Your task to perform on an android device: What's the price of the LG TV? Image 0: 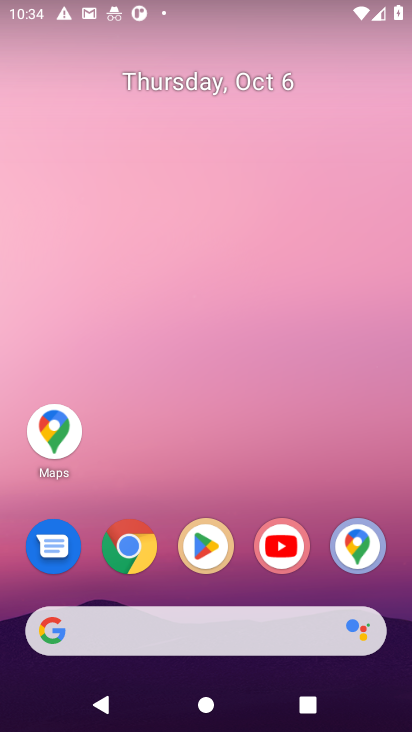
Step 0: click (128, 546)
Your task to perform on an android device: What's the price of the LG TV? Image 1: 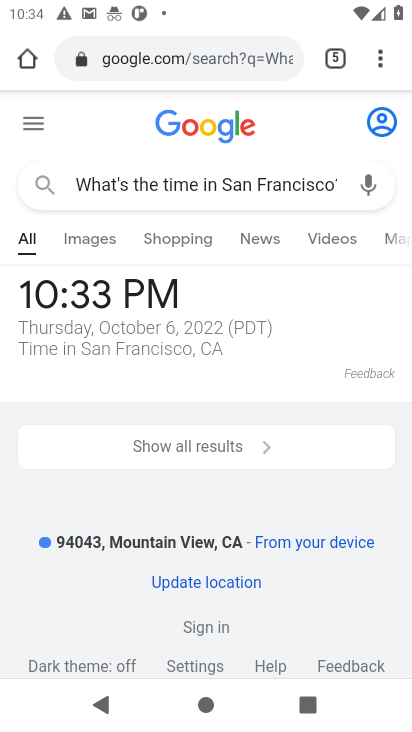
Step 1: click (215, 39)
Your task to perform on an android device: What's the price of the LG TV? Image 2: 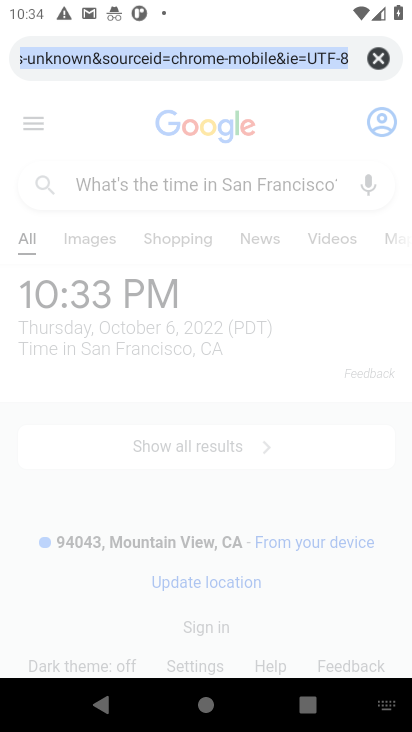
Step 2: click (373, 54)
Your task to perform on an android device: What's the price of the LG TV? Image 3: 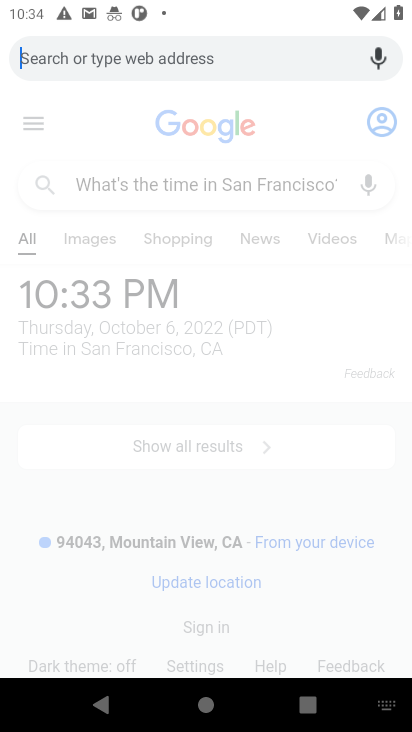
Step 3: type "What's the price of the LG TV?"
Your task to perform on an android device: What's the price of the LG TV? Image 4: 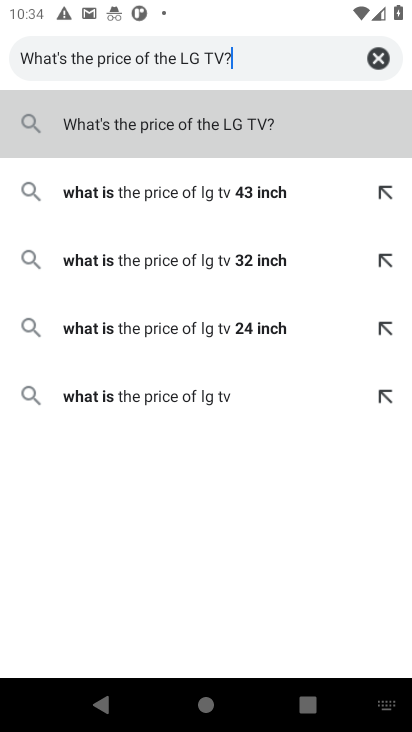
Step 4: click (189, 116)
Your task to perform on an android device: What's the price of the LG TV? Image 5: 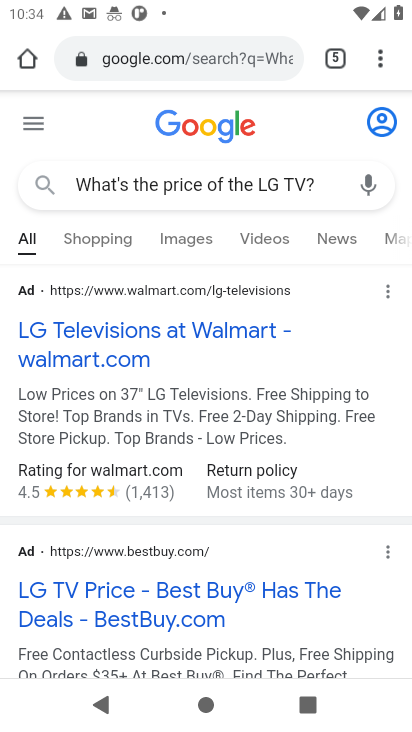
Step 5: click (98, 328)
Your task to perform on an android device: What's the price of the LG TV? Image 6: 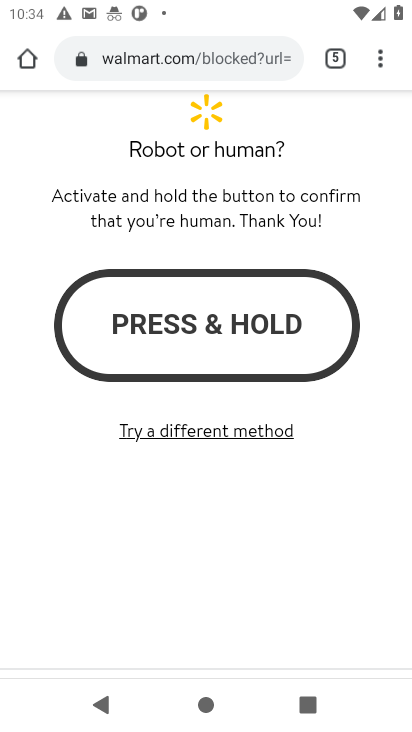
Step 6: click (201, 313)
Your task to perform on an android device: What's the price of the LG TV? Image 7: 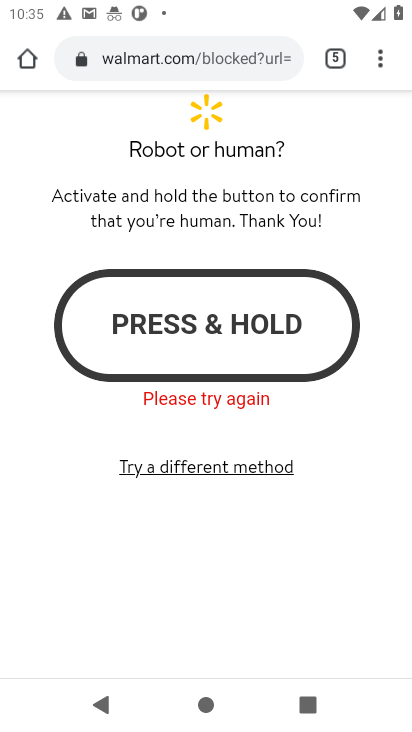
Step 7: press back button
Your task to perform on an android device: What's the price of the LG TV? Image 8: 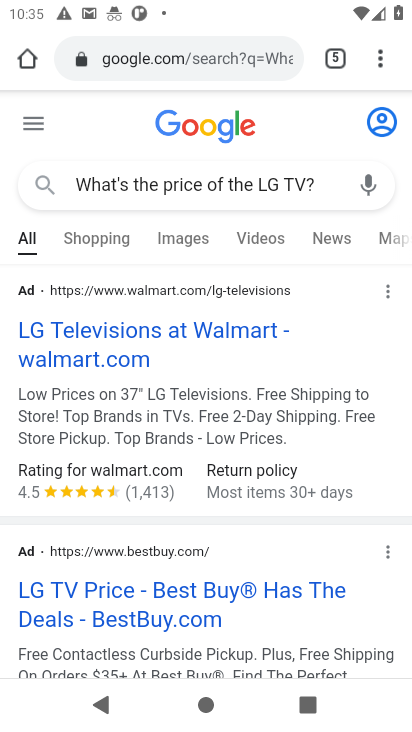
Step 8: drag from (196, 543) to (213, 316)
Your task to perform on an android device: What's the price of the LG TV? Image 9: 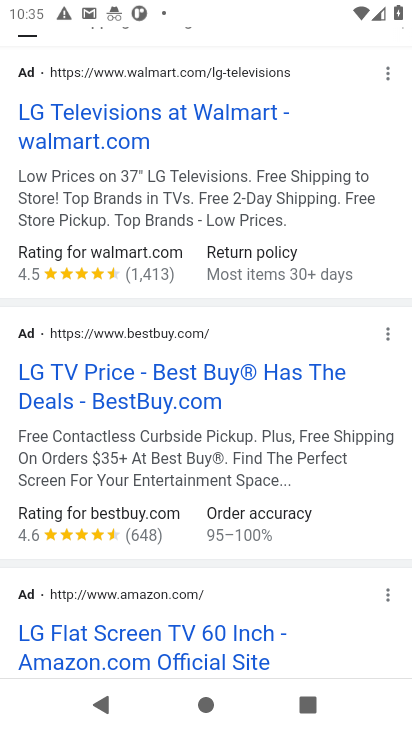
Step 9: click (66, 367)
Your task to perform on an android device: What's the price of the LG TV? Image 10: 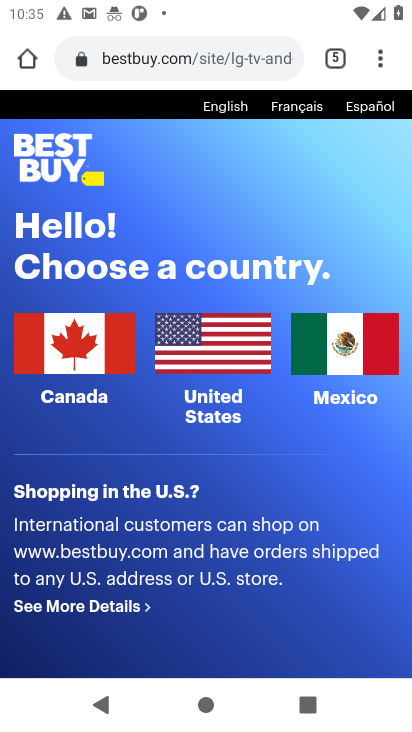
Step 10: click (232, 329)
Your task to perform on an android device: What's the price of the LG TV? Image 11: 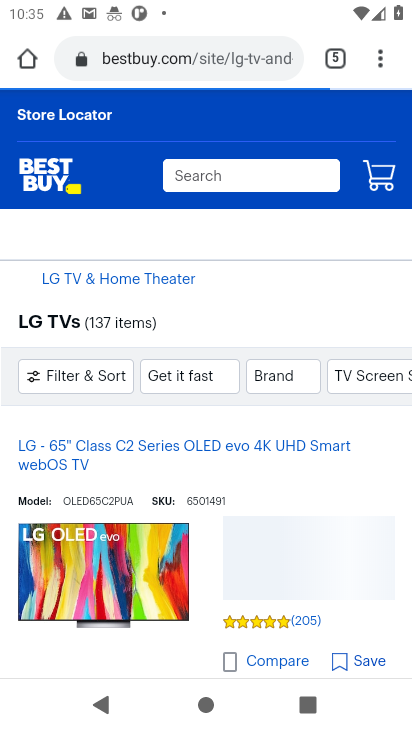
Step 11: drag from (230, 472) to (214, 142)
Your task to perform on an android device: What's the price of the LG TV? Image 12: 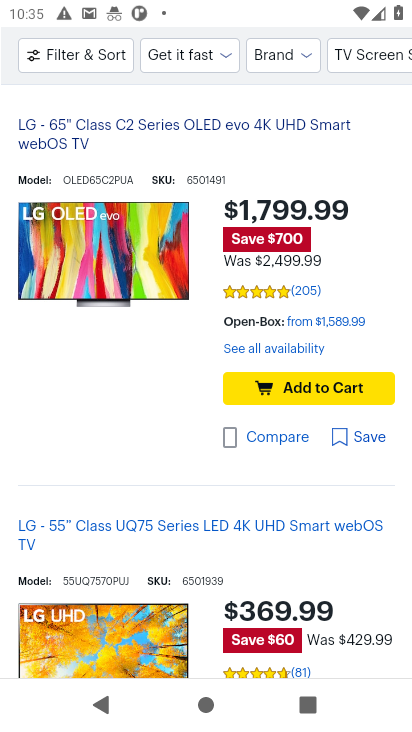
Step 12: drag from (215, 461) to (209, 152)
Your task to perform on an android device: What's the price of the LG TV? Image 13: 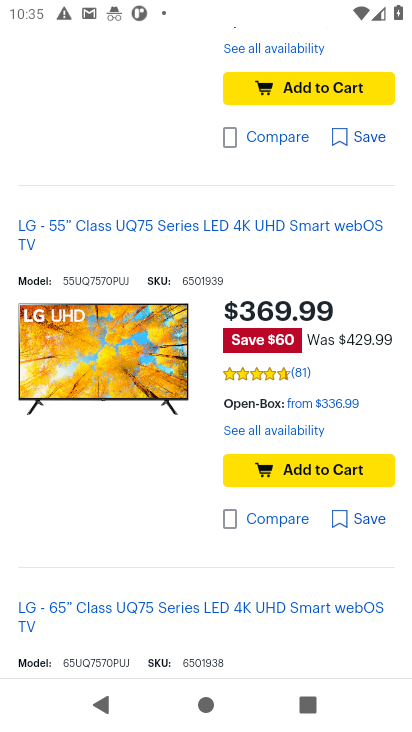
Step 13: drag from (211, 440) to (214, 125)
Your task to perform on an android device: What's the price of the LG TV? Image 14: 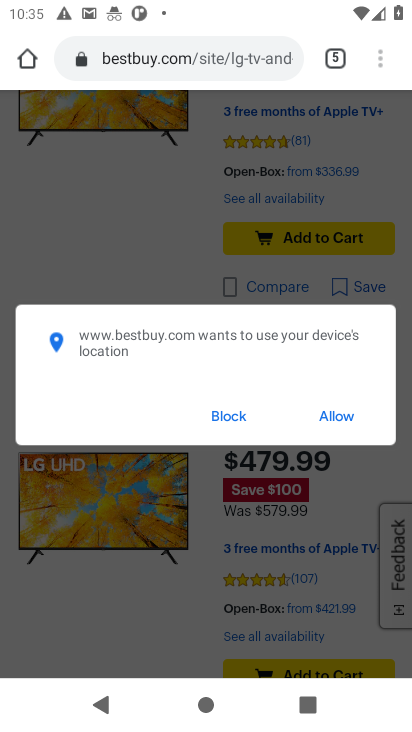
Step 14: click (224, 410)
Your task to perform on an android device: What's the price of the LG TV? Image 15: 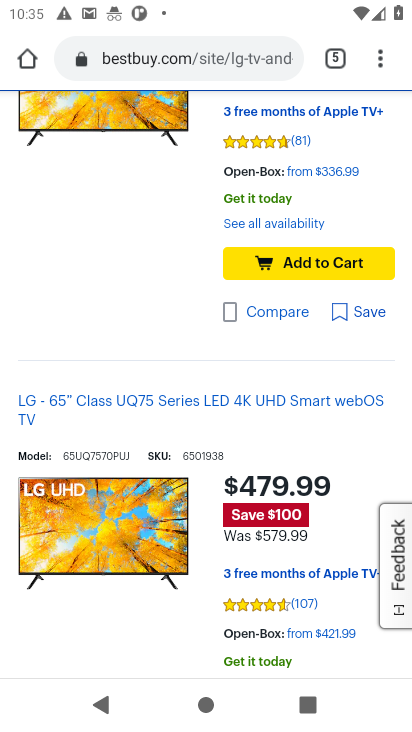
Step 15: task complete